Your task to perform on an android device: make emails show in primary in the gmail app Image 0: 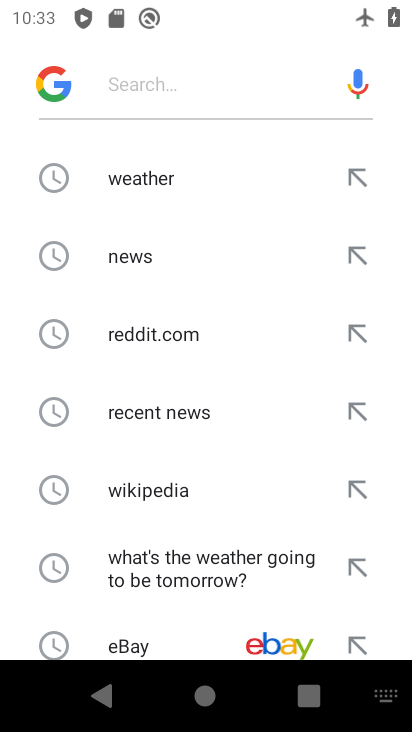
Step 0: press back button
Your task to perform on an android device: make emails show in primary in the gmail app Image 1: 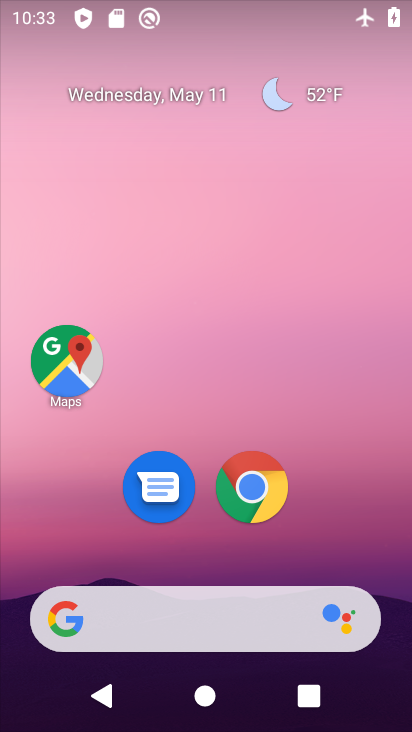
Step 1: drag from (346, 533) to (245, 2)
Your task to perform on an android device: make emails show in primary in the gmail app Image 2: 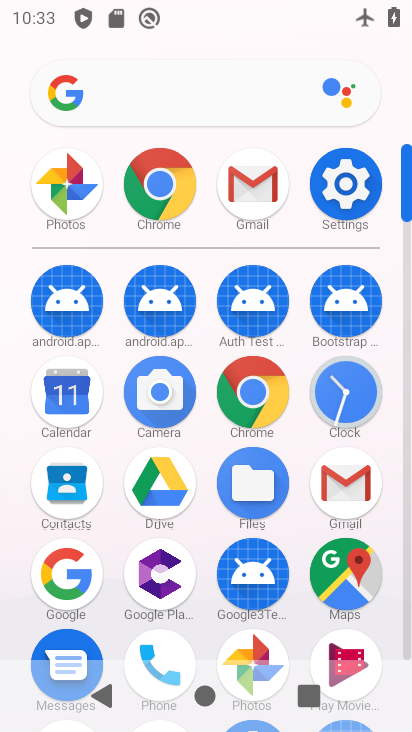
Step 2: click (345, 479)
Your task to perform on an android device: make emails show in primary in the gmail app Image 3: 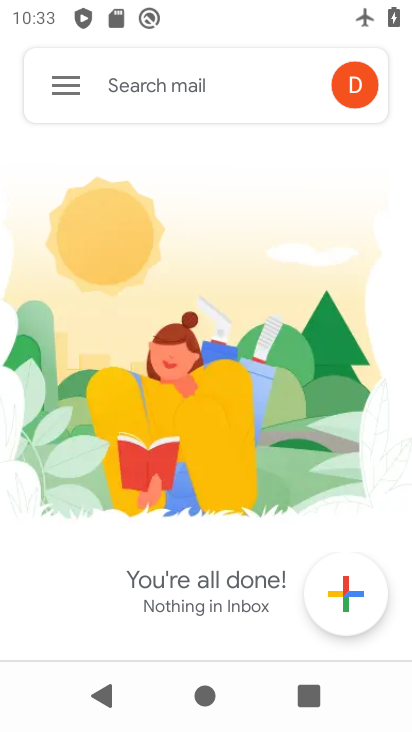
Step 3: click (63, 76)
Your task to perform on an android device: make emails show in primary in the gmail app Image 4: 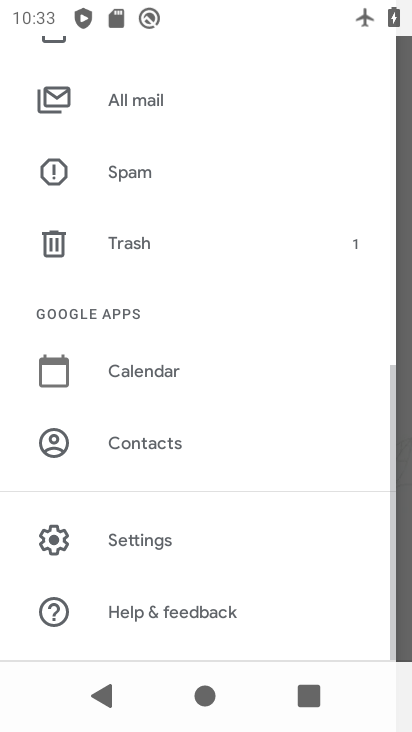
Step 4: click (141, 528)
Your task to perform on an android device: make emails show in primary in the gmail app Image 5: 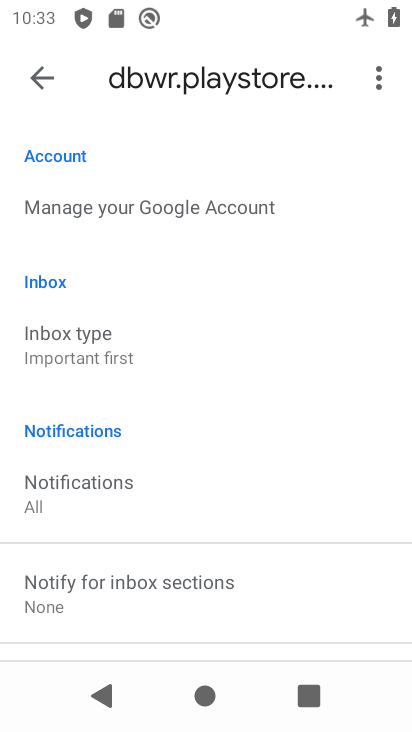
Step 5: drag from (220, 544) to (230, 181)
Your task to perform on an android device: make emails show in primary in the gmail app Image 6: 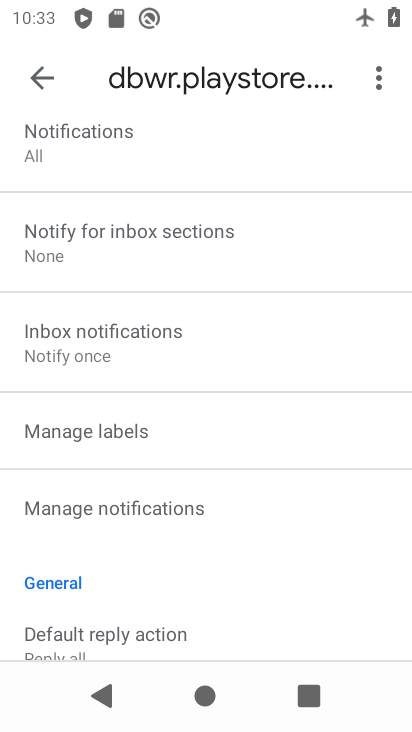
Step 6: drag from (229, 553) to (279, 181)
Your task to perform on an android device: make emails show in primary in the gmail app Image 7: 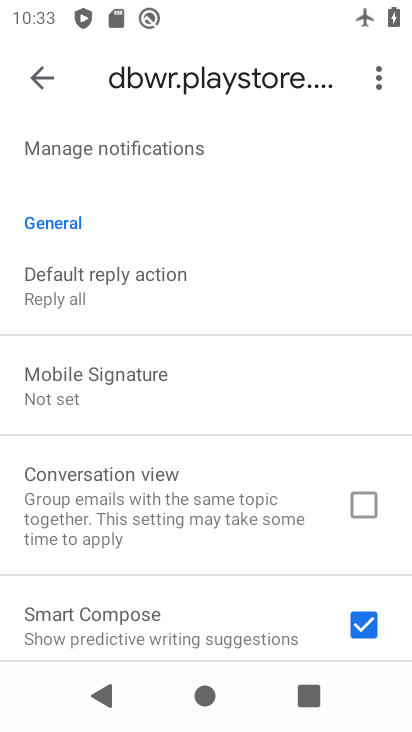
Step 7: drag from (220, 546) to (267, 210)
Your task to perform on an android device: make emails show in primary in the gmail app Image 8: 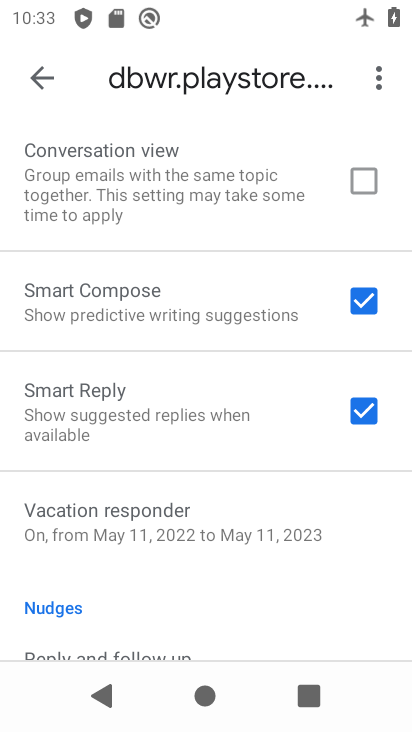
Step 8: drag from (197, 581) to (210, 150)
Your task to perform on an android device: make emails show in primary in the gmail app Image 9: 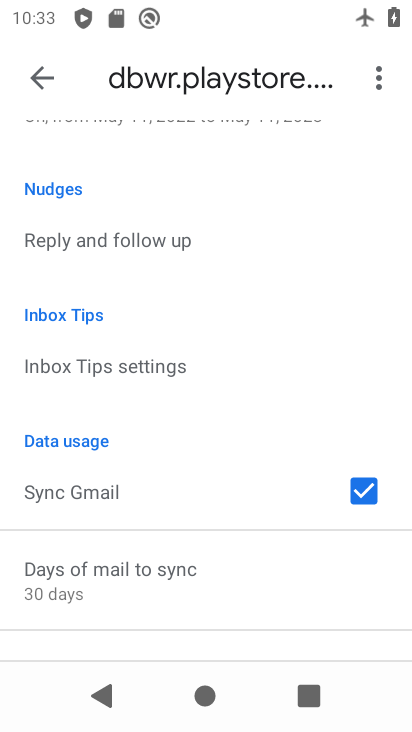
Step 9: drag from (210, 578) to (264, 170)
Your task to perform on an android device: make emails show in primary in the gmail app Image 10: 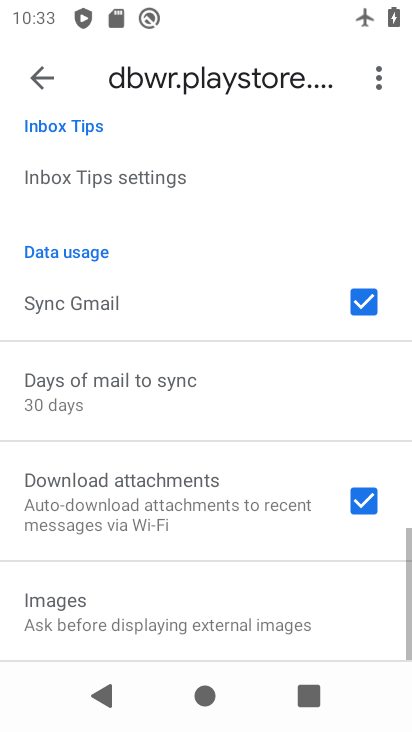
Step 10: drag from (265, 169) to (206, 617)
Your task to perform on an android device: make emails show in primary in the gmail app Image 11: 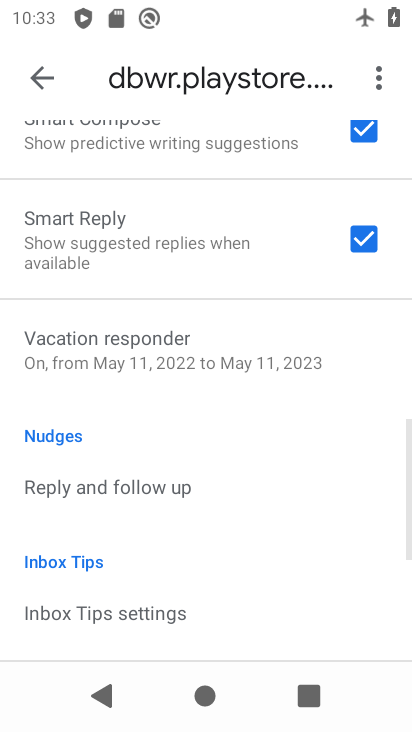
Step 11: drag from (244, 246) to (219, 560)
Your task to perform on an android device: make emails show in primary in the gmail app Image 12: 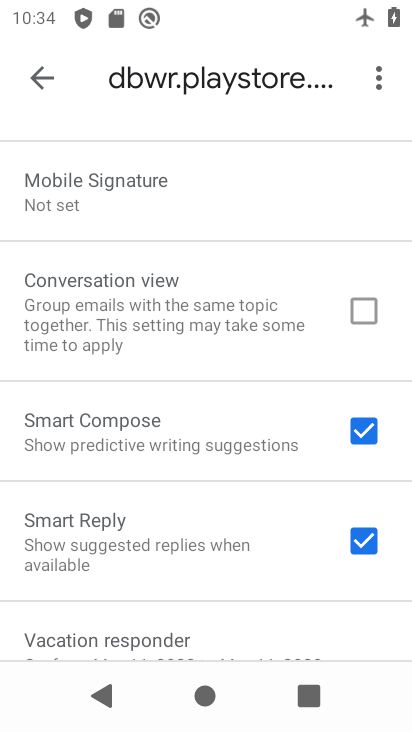
Step 12: drag from (227, 321) to (200, 578)
Your task to perform on an android device: make emails show in primary in the gmail app Image 13: 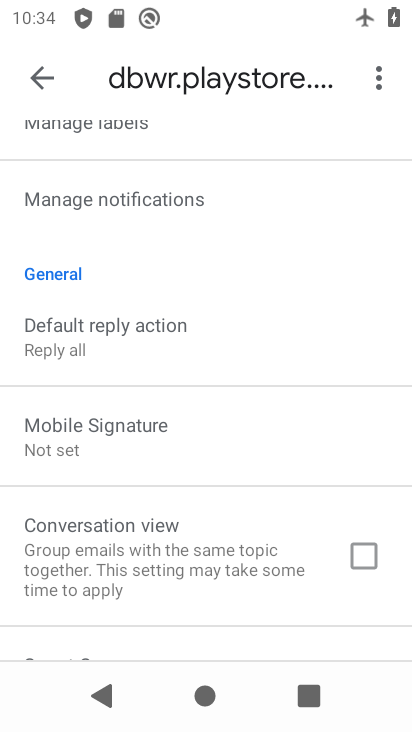
Step 13: drag from (230, 300) to (211, 593)
Your task to perform on an android device: make emails show in primary in the gmail app Image 14: 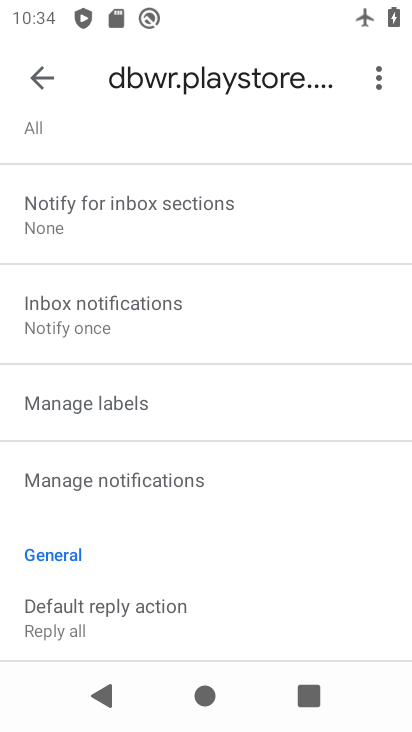
Step 14: drag from (189, 278) to (228, 567)
Your task to perform on an android device: make emails show in primary in the gmail app Image 15: 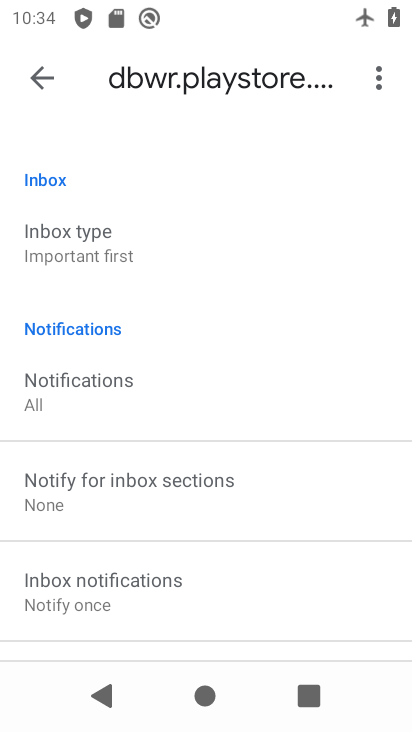
Step 15: click (138, 215)
Your task to perform on an android device: make emails show in primary in the gmail app Image 16: 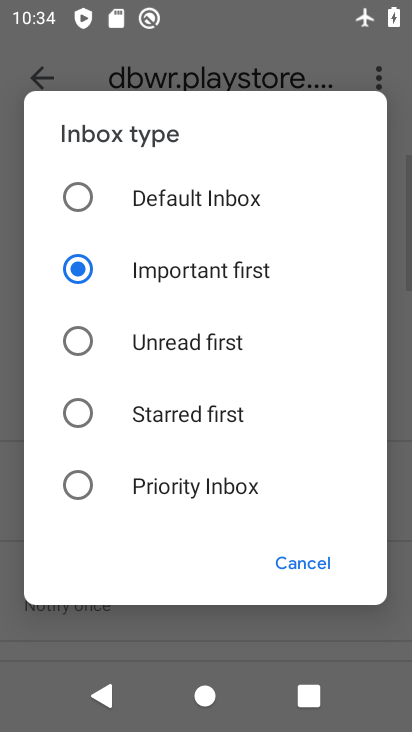
Step 16: click (163, 194)
Your task to perform on an android device: make emails show in primary in the gmail app Image 17: 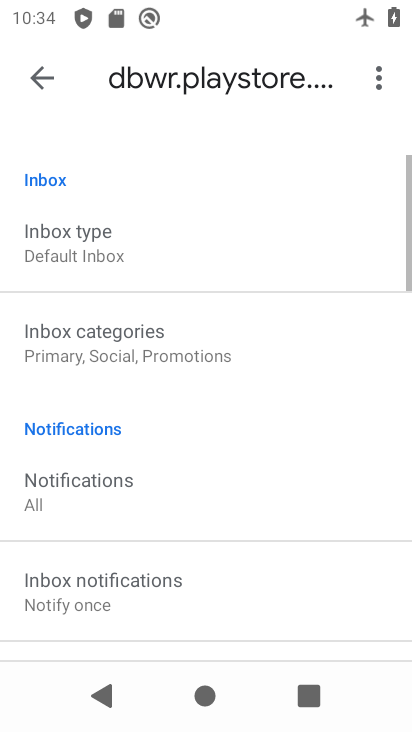
Step 17: click (163, 362)
Your task to perform on an android device: make emails show in primary in the gmail app Image 18: 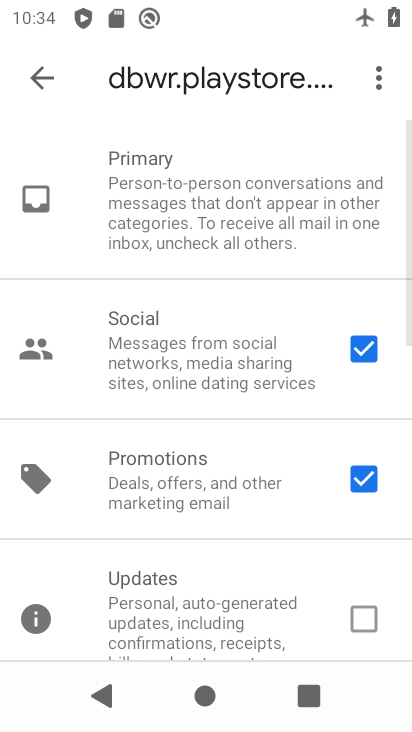
Step 18: click (363, 352)
Your task to perform on an android device: make emails show in primary in the gmail app Image 19: 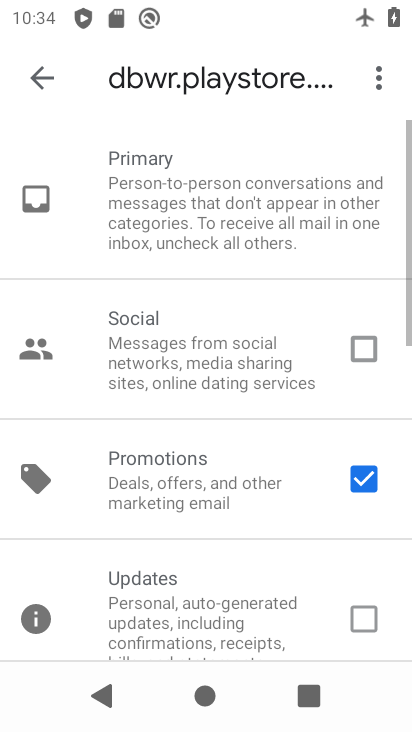
Step 19: click (359, 476)
Your task to perform on an android device: make emails show in primary in the gmail app Image 20: 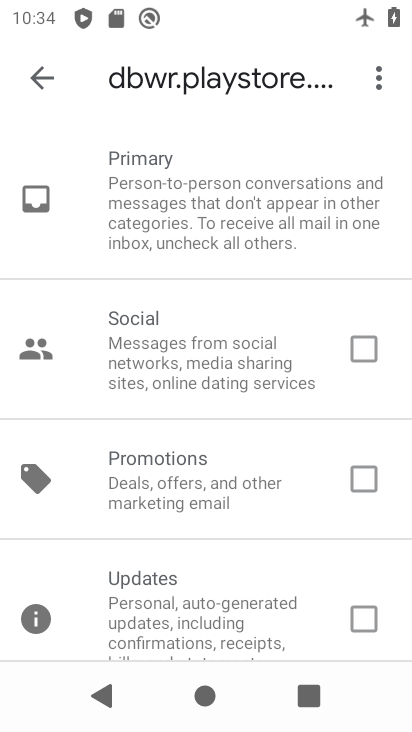
Step 20: click (46, 81)
Your task to perform on an android device: make emails show in primary in the gmail app Image 21: 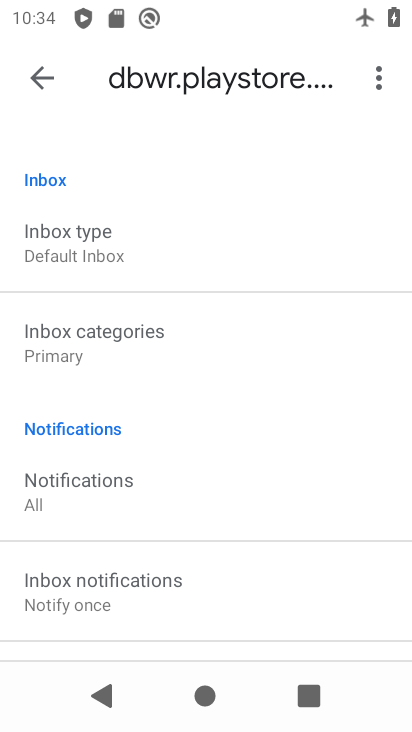
Step 21: task complete